Your task to perform on an android device: turn pop-ups on in chrome Image 0: 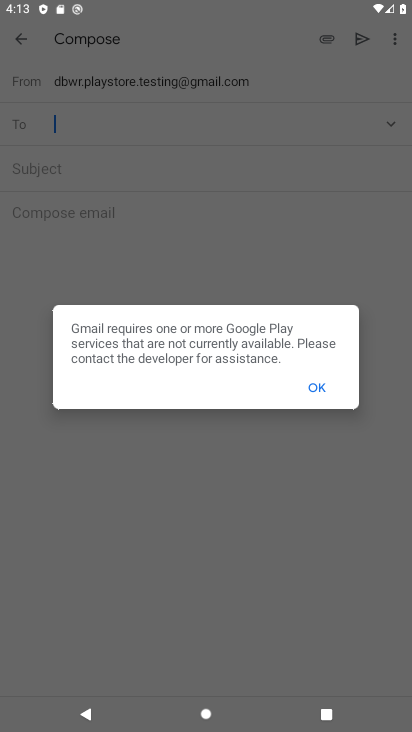
Step 0: click (320, 384)
Your task to perform on an android device: turn pop-ups on in chrome Image 1: 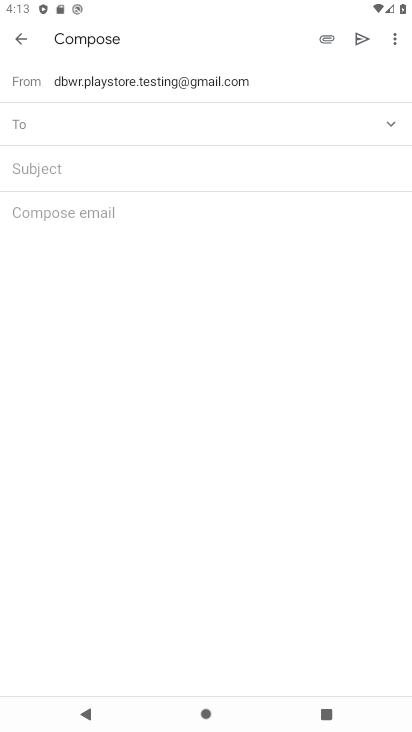
Step 1: press back button
Your task to perform on an android device: turn pop-ups on in chrome Image 2: 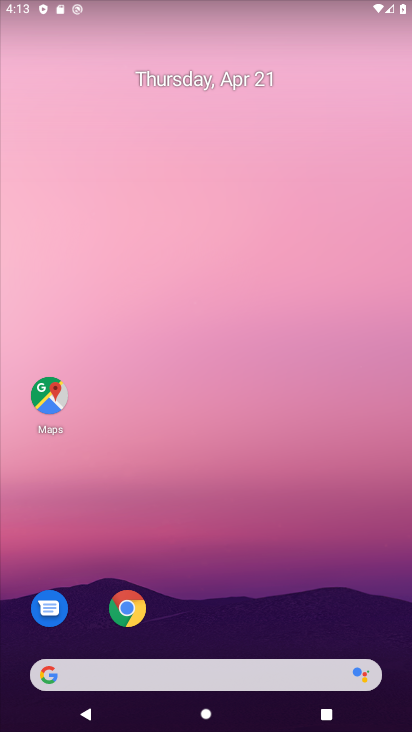
Step 2: click (138, 617)
Your task to perform on an android device: turn pop-ups on in chrome Image 3: 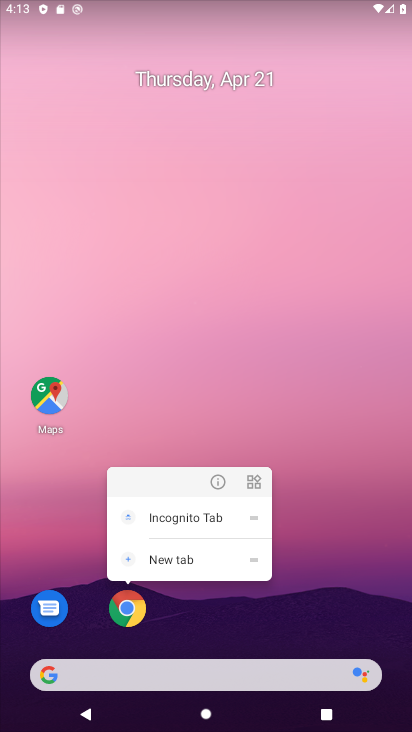
Step 3: click (135, 617)
Your task to perform on an android device: turn pop-ups on in chrome Image 4: 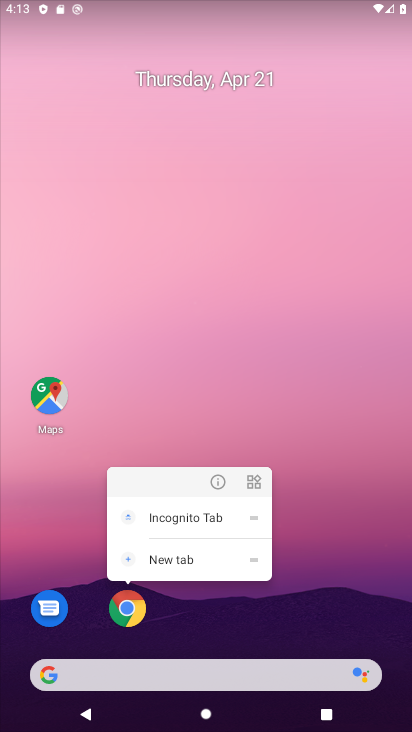
Step 4: click (139, 622)
Your task to perform on an android device: turn pop-ups on in chrome Image 5: 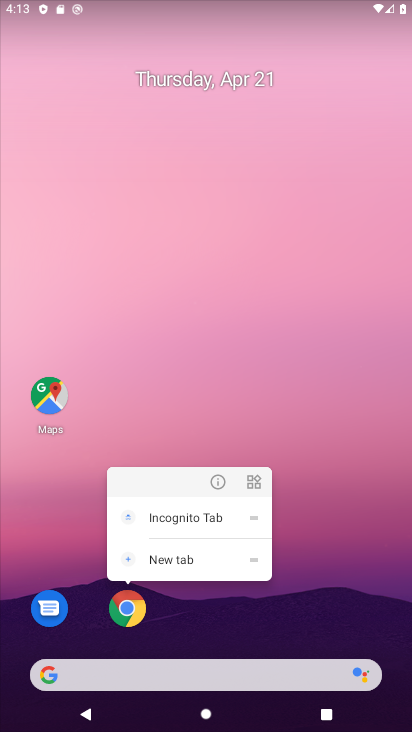
Step 5: click (122, 624)
Your task to perform on an android device: turn pop-ups on in chrome Image 6: 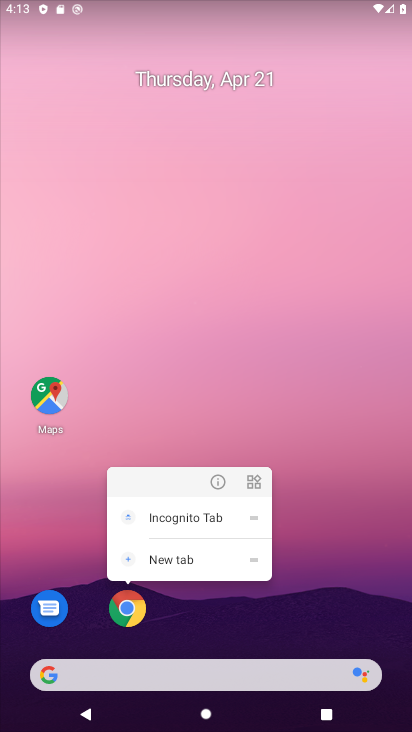
Step 6: click (129, 588)
Your task to perform on an android device: turn pop-ups on in chrome Image 7: 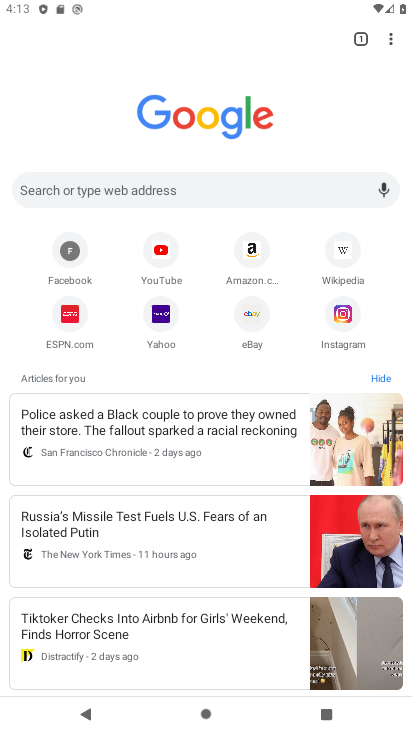
Step 7: click (127, 622)
Your task to perform on an android device: turn pop-ups on in chrome Image 8: 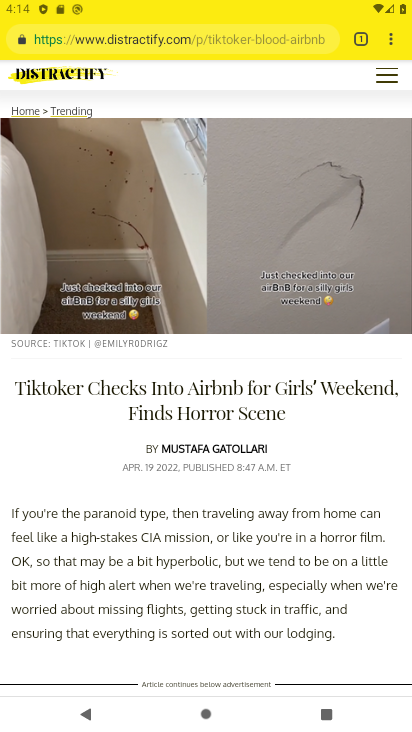
Step 8: click (392, 45)
Your task to perform on an android device: turn pop-ups on in chrome Image 9: 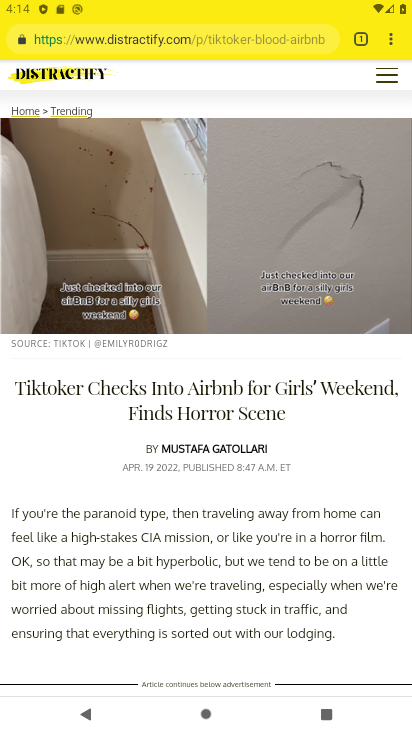
Step 9: click (390, 35)
Your task to perform on an android device: turn pop-ups on in chrome Image 10: 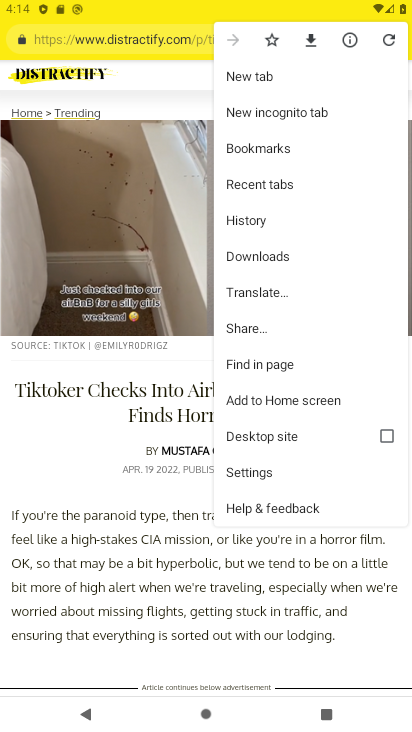
Step 10: click (248, 477)
Your task to perform on an android device: turn pop-ups on in chrome Image 11: 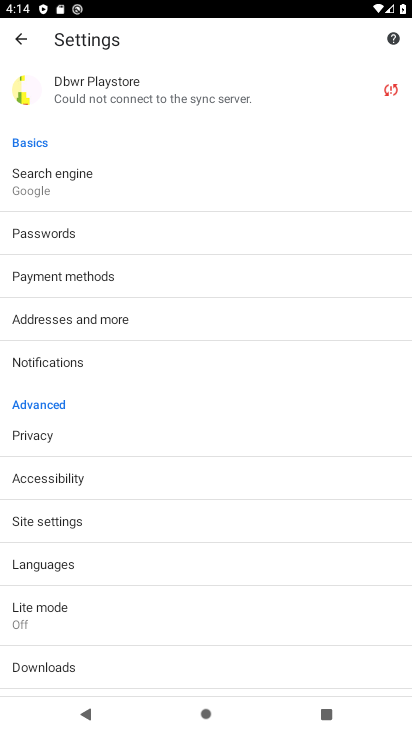
Step 11: click (80, 521)
Your task to perform on an android device: turn pop-ups on in chrome Image 12: 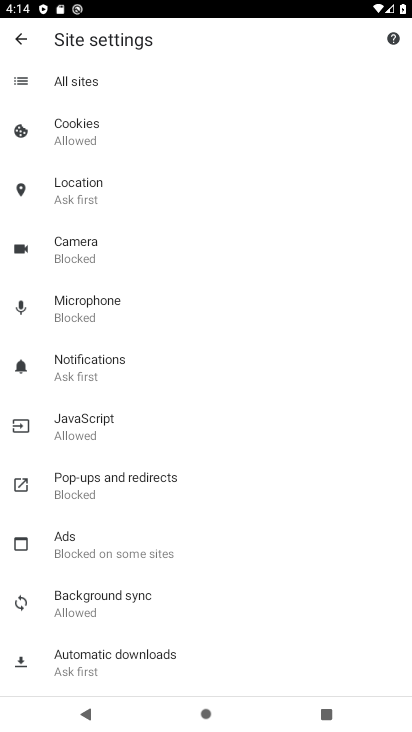
Step 12: click (85, 501)
Your task to perform on an android device: turn pop-ups on in chrome Image 13: 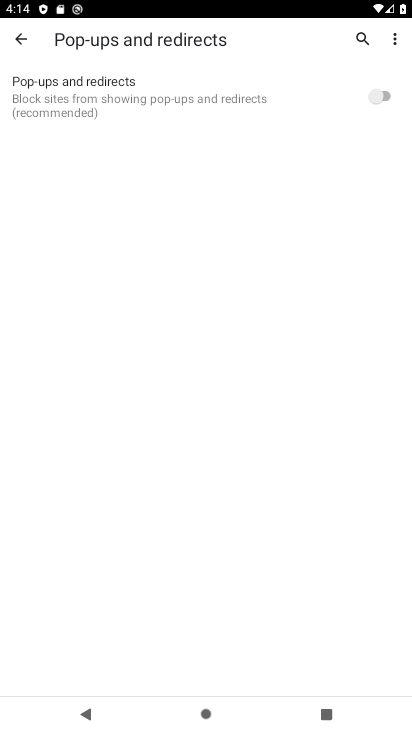
Step 13: click (386, 92)
Your task to perform on an android device: turn pop-ups on in chrome Image 14: 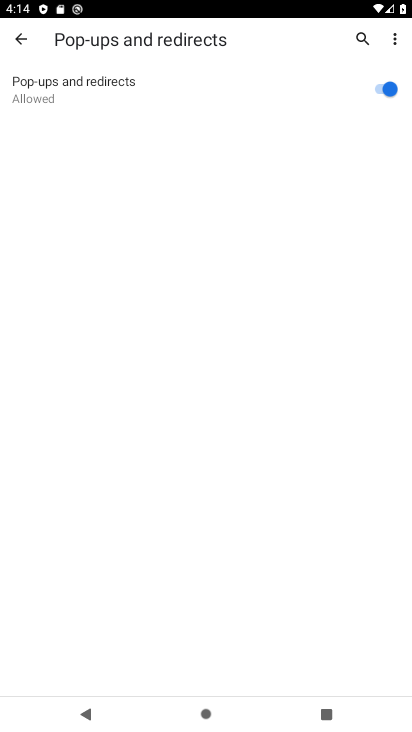
Step 14: task complete